Your task to perform on an android device: turn off javascript in the chrome app Image 0: 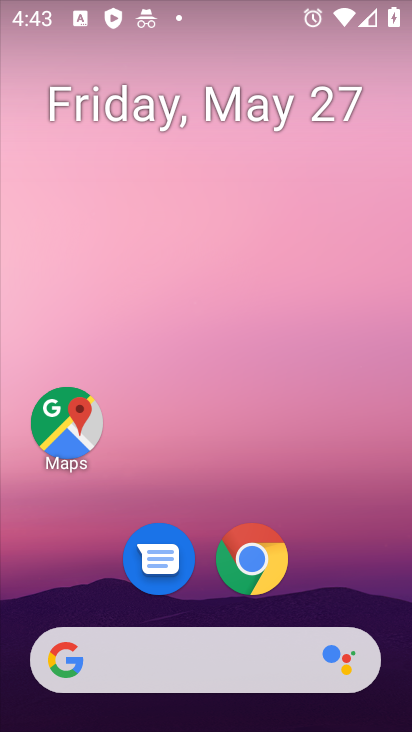
Step 0: drag from (278, 510) to (274, 99)
Your task to perform on an android device: turn off javascript in the chrome app Image 1: 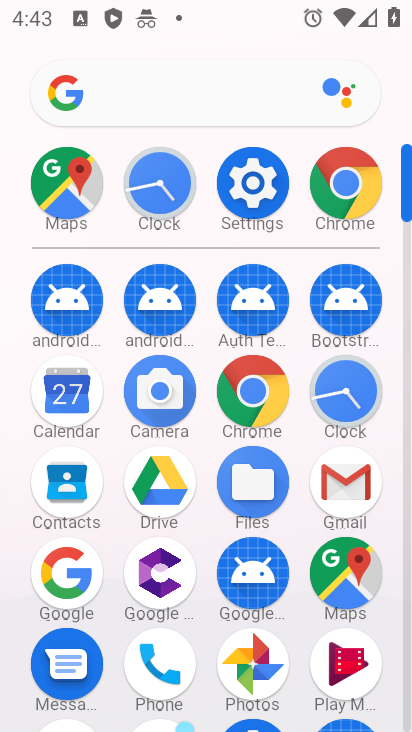
Step 1: click (257, 395)
Your task to perform on an android device: turn off javascript in the chrome app Image 2: 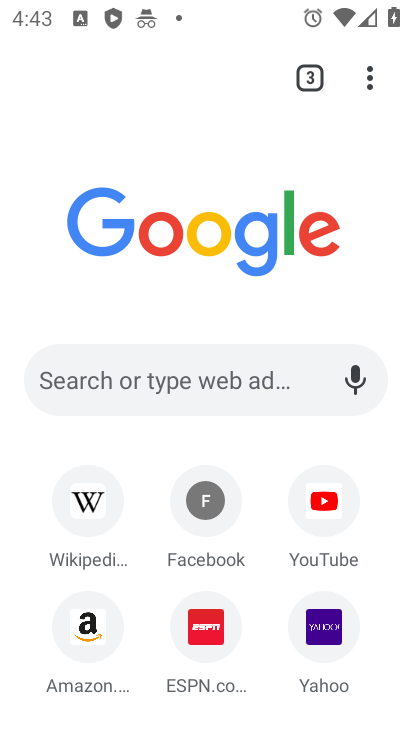
Step 2: drag from (371, 84) to (218, 624)
Your task to perform on an android device: turn off javascript in the chrome app Image 3: 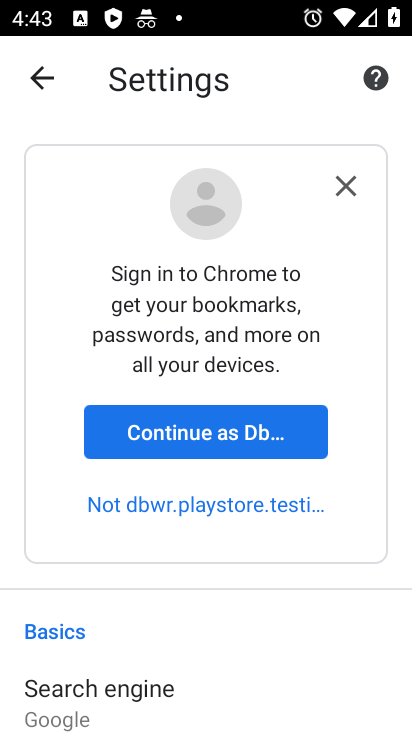
Step 3: drag from (283, 647) to (296, 157)
Your task to perform on an android device: turn off javascript in the chrome app Image 4: 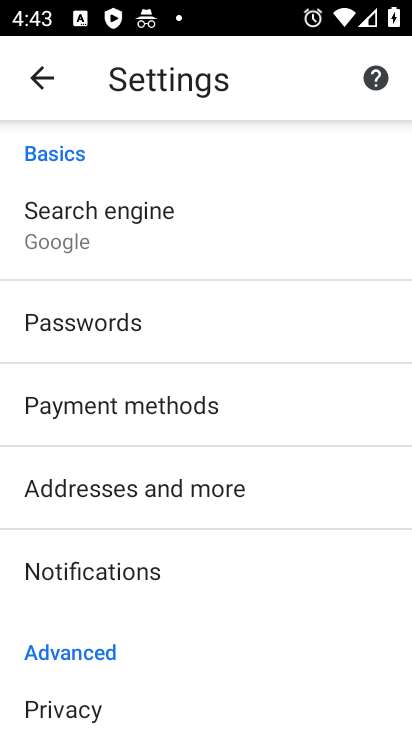
Step 4: drag from (283, 695) to (276, 180)
Your task to perform on an android device: turn off javascript in the chrome app Image 5: 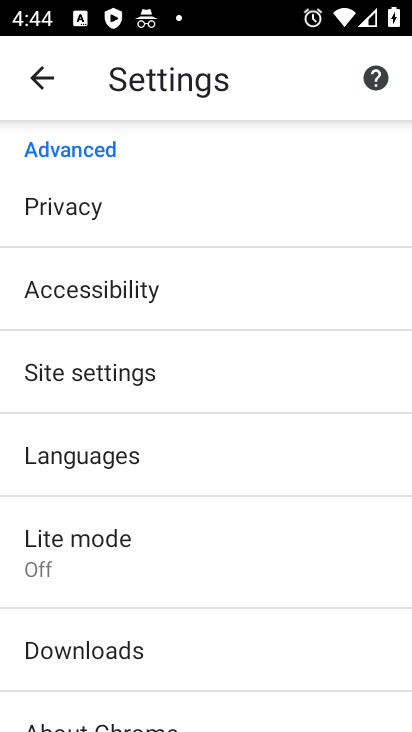
Step 5: click (168, 378)
Your task to perform on an android device: turn off javascript in the chrome app Image 6: 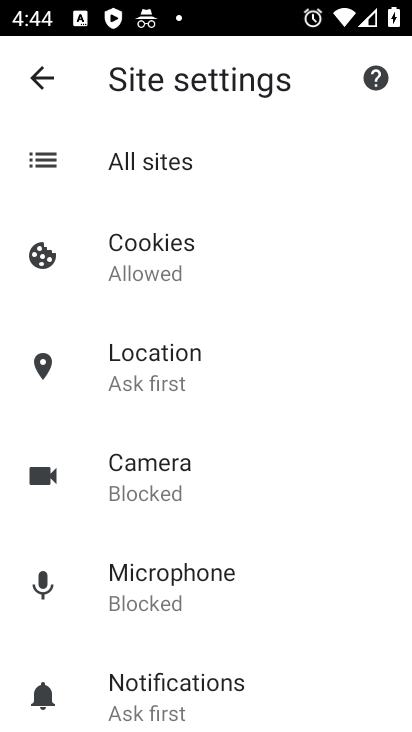
Step 6: drag from (249, 647) to (242, 86)
Your task to perform on an android device: turn off javascript in the chrome app Image 7: 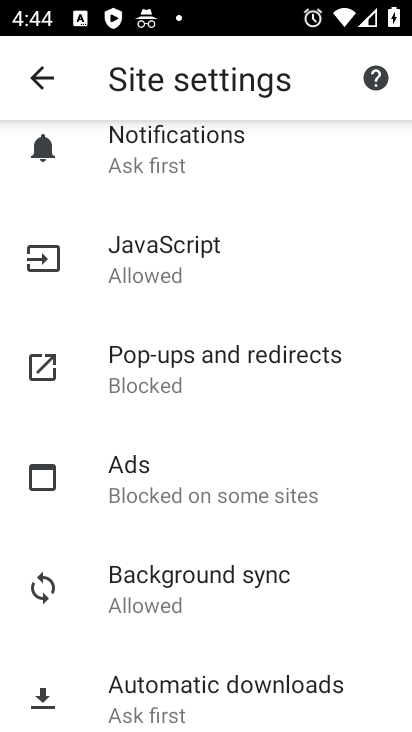
Step 7: click (209, 265)
Your task to perform on an android device: turn off javascript in the chrome app Image 8: 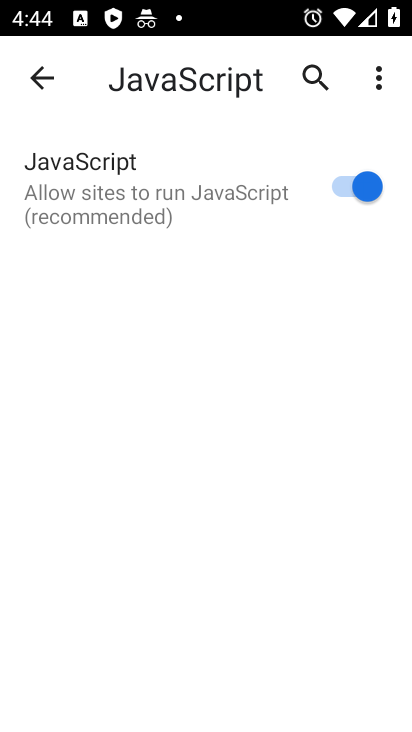
Step 8: click (334, 187)
Your task to perform on an android device: turn off javascript in the chrome app Image 9: 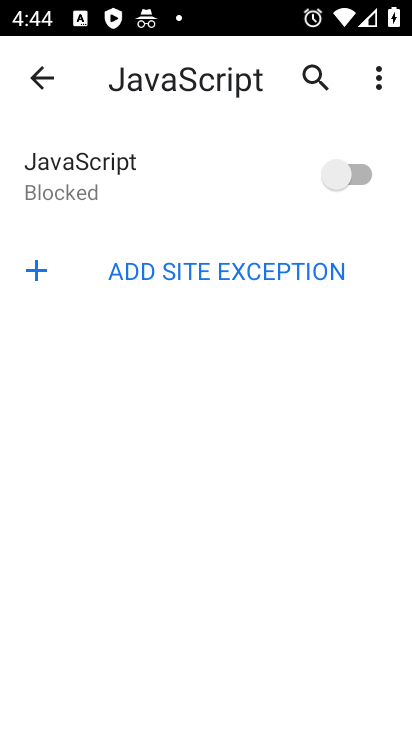
Step 9: task complete